Your task to perform on an android device: change the clock display to analog Image 0: 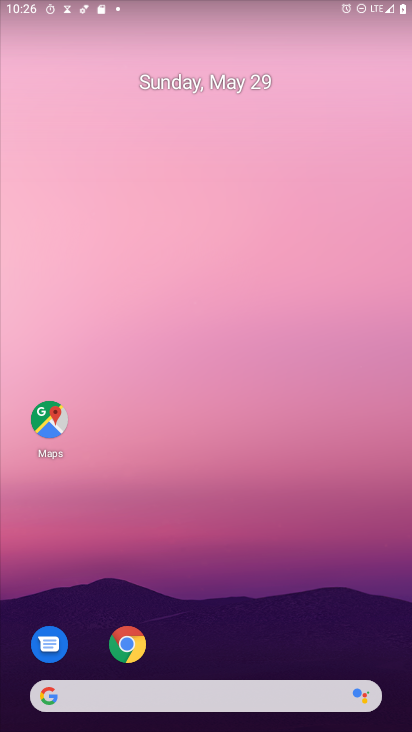
Step 0: drag from (211, 12) to (217, 674)
Your task to perform on an android device: change the clock display to analog Image 1: 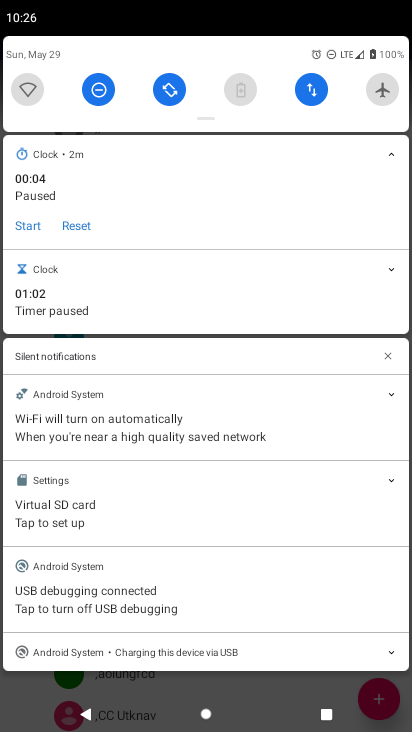
Step 1: press home button
Your task to perform on an android device: change the clock display to analog Image 2: 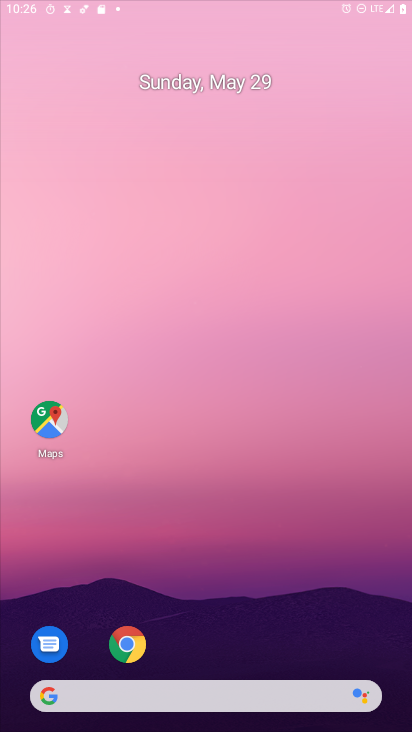
Step 2: press home button
Your task to perform on an android device: change the clock display to analog Image 3: 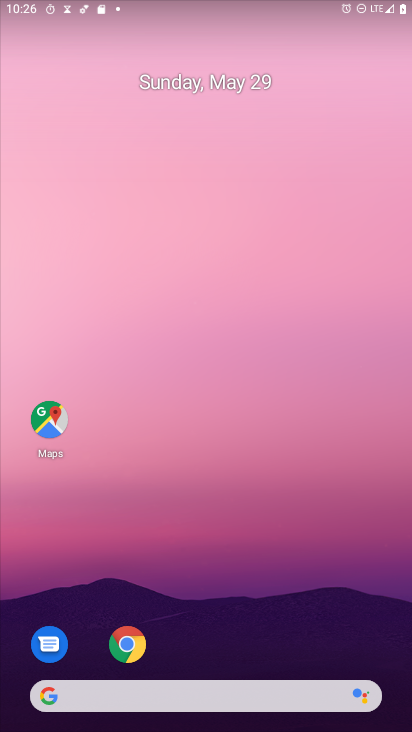
Step 3: drag from (137, 723) to (139, 73)
Your task to perform on an android device: change the clock display to analog Image 4: 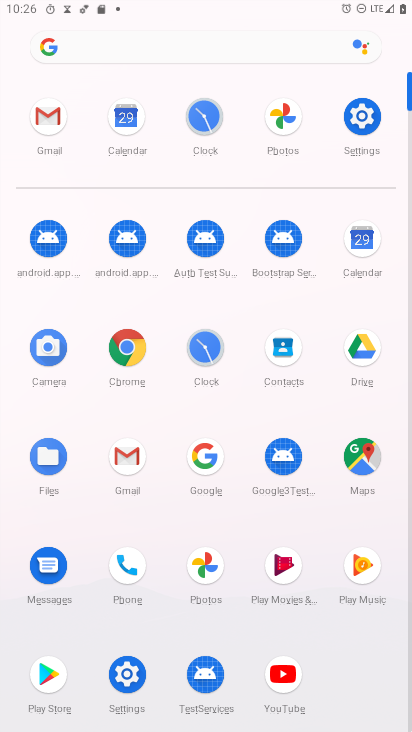
Step 4: click (211, 126)
Your task to perform on an android device: change the clock display to analog Image 5: 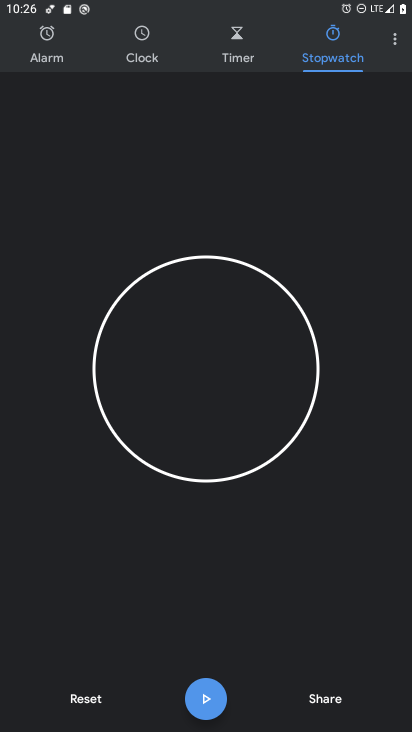
Step 5: click (398, 39)
Your task to perform on an android device: change the clock display to analog Image 6: 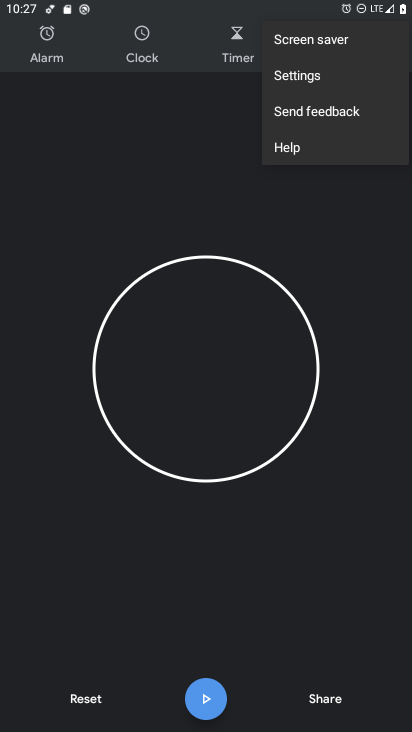
Step 6: click (301, 87)
Your task to perform on an android device: change the clock display to analog Image 7: 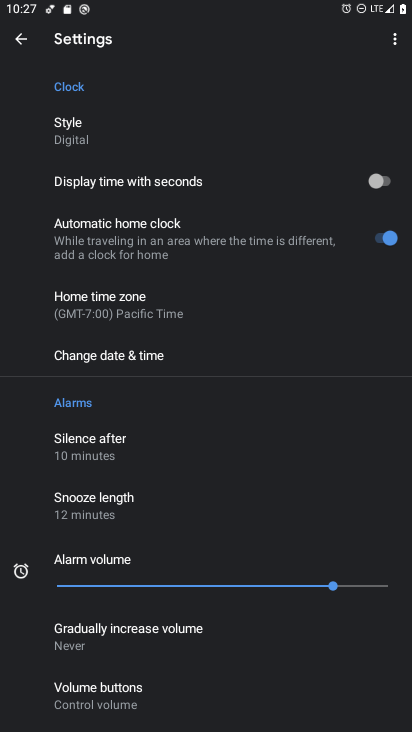
Step 7: click (71, 141)
Your task to perform on an android device: change the clock display to analog Image 8: 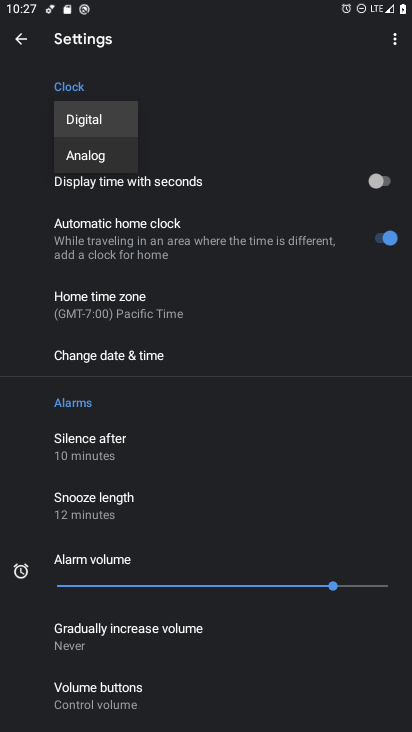
Step 8: click (78, 170)
Your task to perform on an android device: change the clock display to analog Image 9: 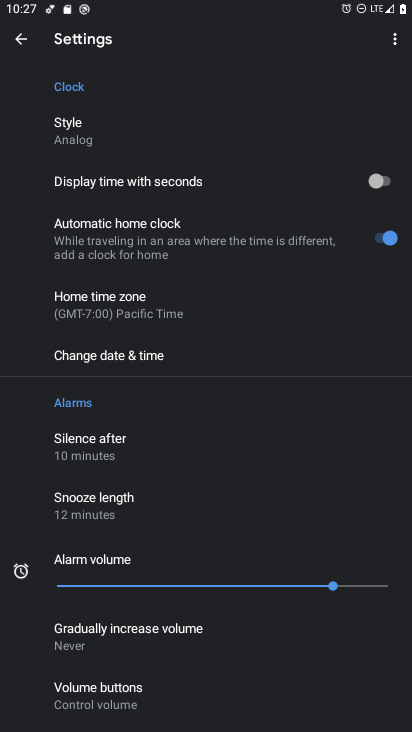
Step 9: task complete